Your task to perform on an android device: toggle location history Image 0: 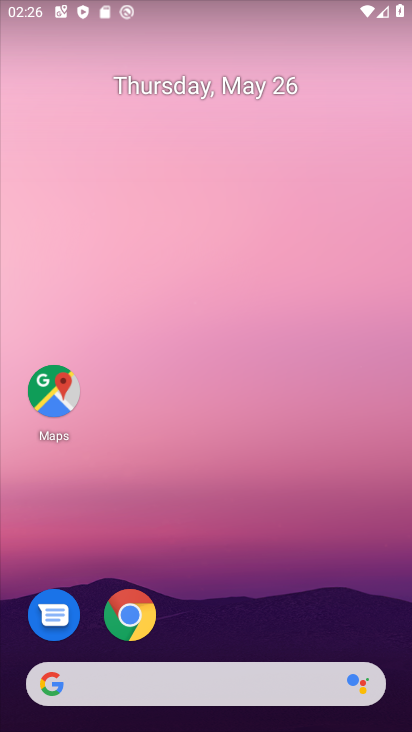
Step 0: press home button
Your task to perform on an android device: toggle location history Image 1: 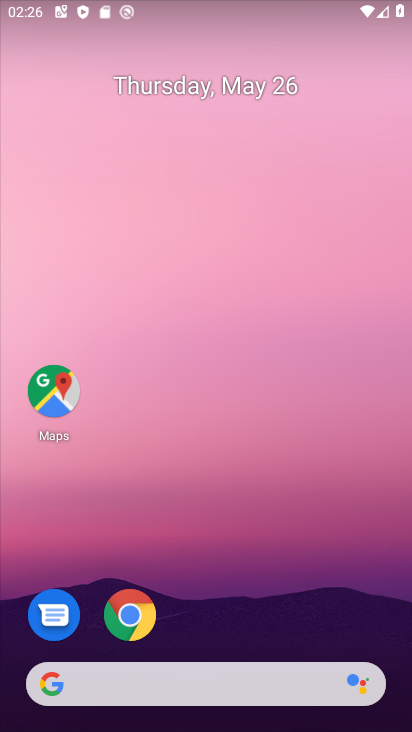
Step 1: drag from (216, 642) to (228, 45)
Your task to perform on an android device: toggle location history Image 2: 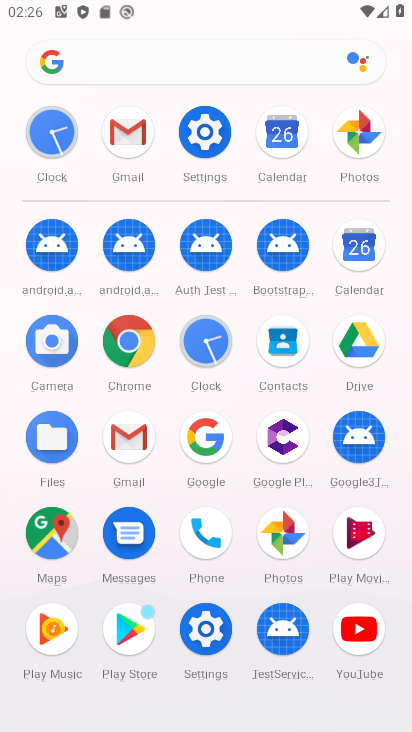
Step 2: click (202, 126)
Your task to perform on an android device: toggle location history Image 3: 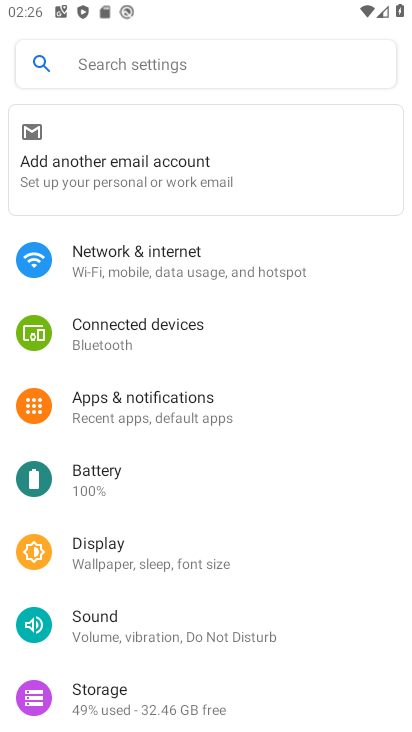
Step 3: drag from (182, 681) to (167, 53)
Your task to perform on an android device: toggle location history Image 4: 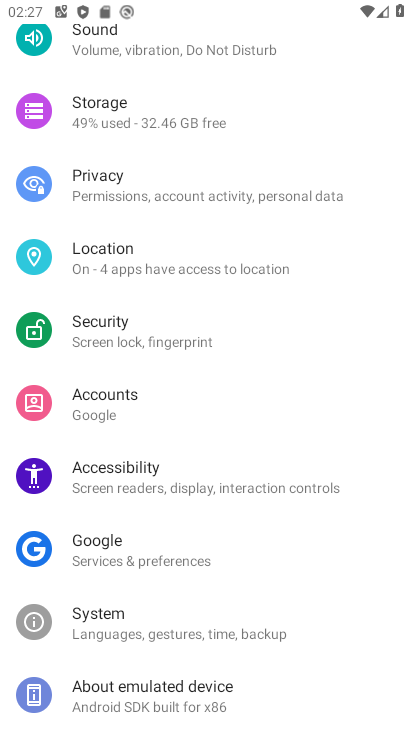
Step 4: click (145, 251)
Your task to perform on an android device: toggle location history Image 5: 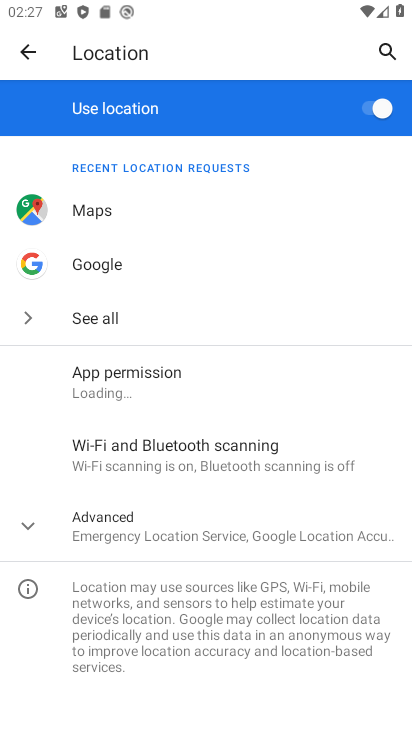
Step 5: click (31, 522)
Your task to perform on an android device: toggle location history Image 6: 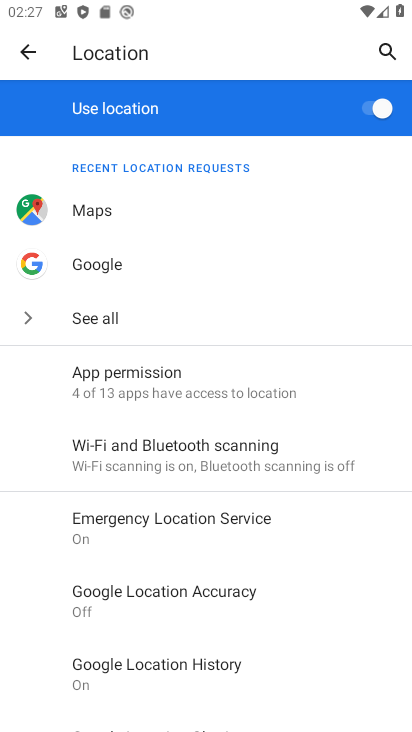
Step 6: click (108, 675)
Your task to perform on an android device: toggle location history Image 7: 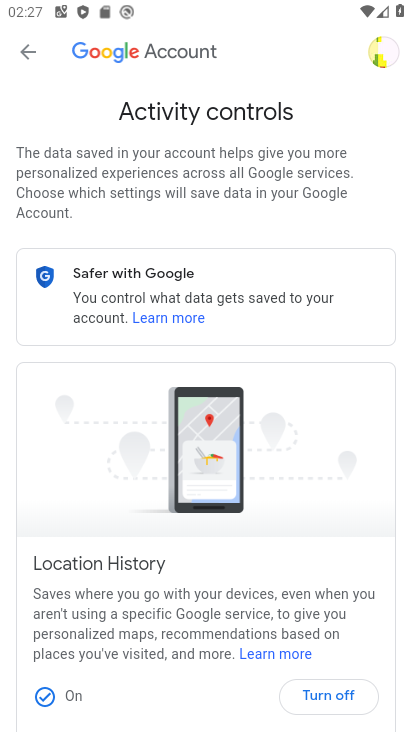
Step 7: drag from (188, 681) to (207, 281)
Your task to perform on an android device: toggle location history Image 8: 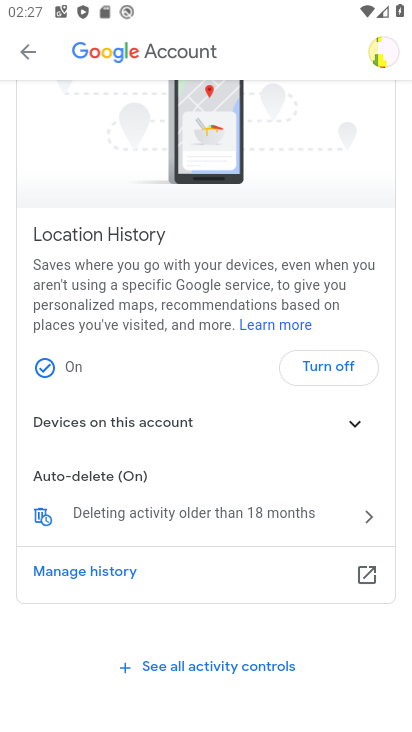
Step 8: click (325, 370)
Your task to perform on an android device: toggle location history Image 9: 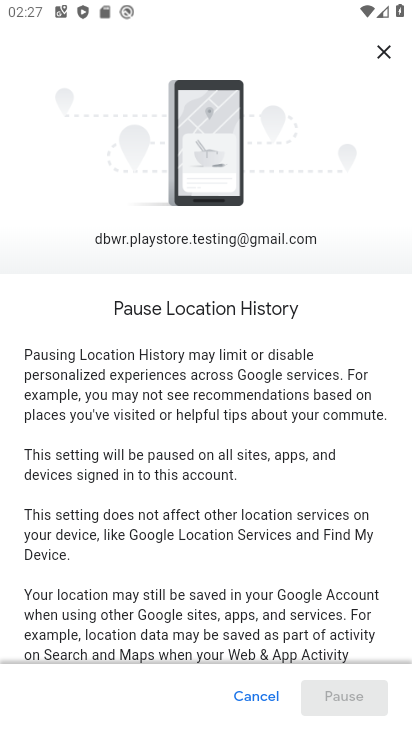
Step 9: drag from (240, 626) to (269, 155)
Your task to perform on an android device: toggle location history Image 10: 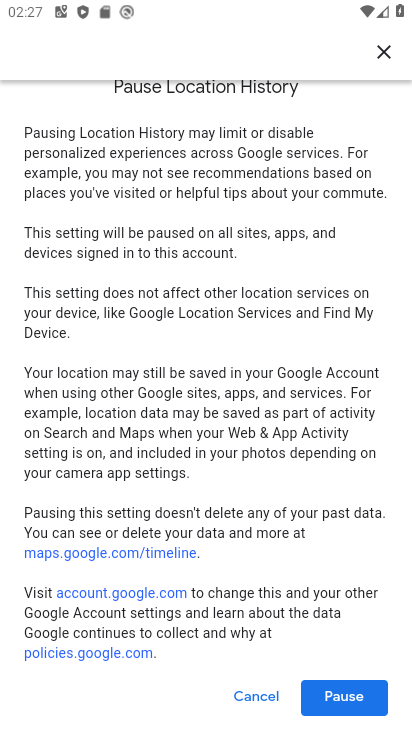
Step 10: click (342, 698)
Your task to perform on an android device: toggle location history Image 11: 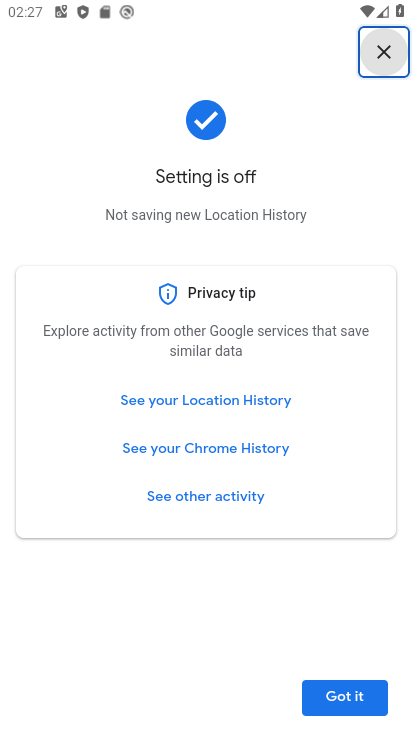
Step 11: click (344, 696)
Your task to perform on an android device: toggle location history Image 12: 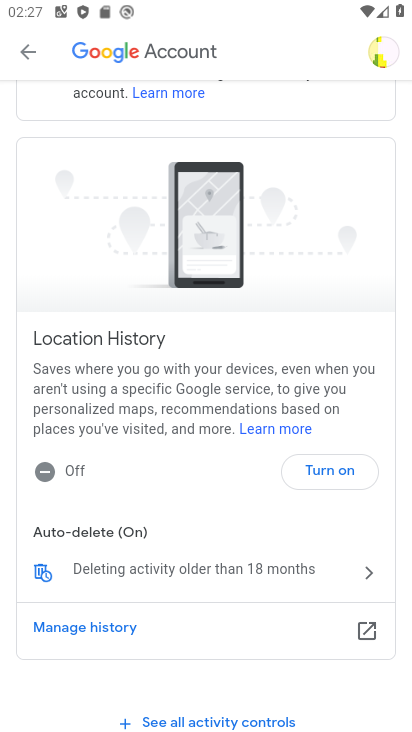
Step 12: task complete